Your task to perform on an android device: search for starred emails in the gmail app Image 0: 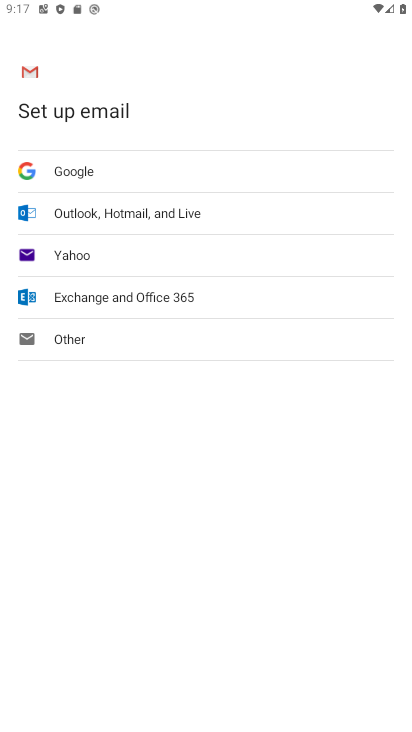
Step 0: press home button
Your task to perform on an android device: search for starred emails in the gmail app Image 1: 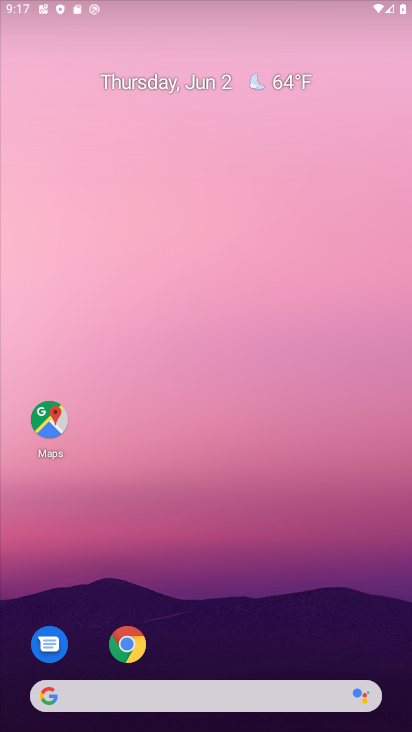
Step 1: drag from (274, 609) to (291, 19)
Your task to perform on an android device: search for starred emails in the gmail app Image 2: 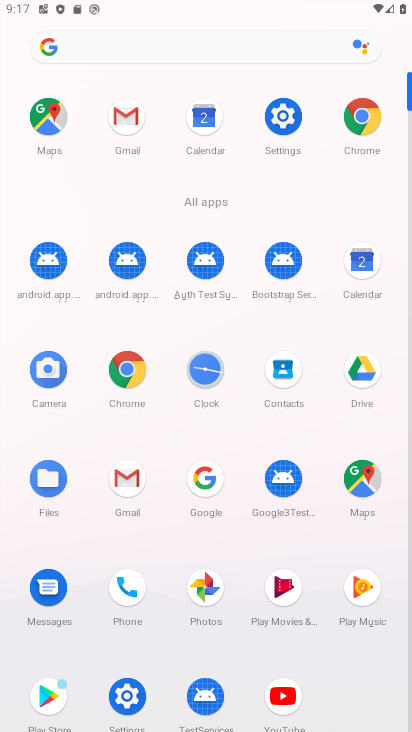
Step 2: click (113, 476)
Your task to perform on an android device: search for starred emails in the gmail app Image 3: 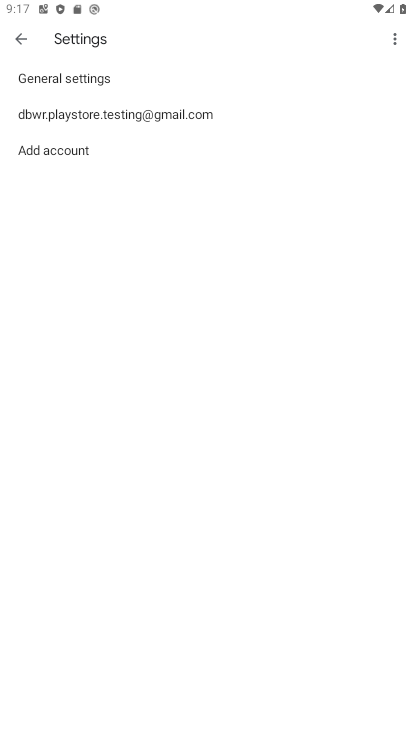
Step 3: click (19, 34)
Your task to perform on an android device: search for starred emails in the gmail app Image 4: 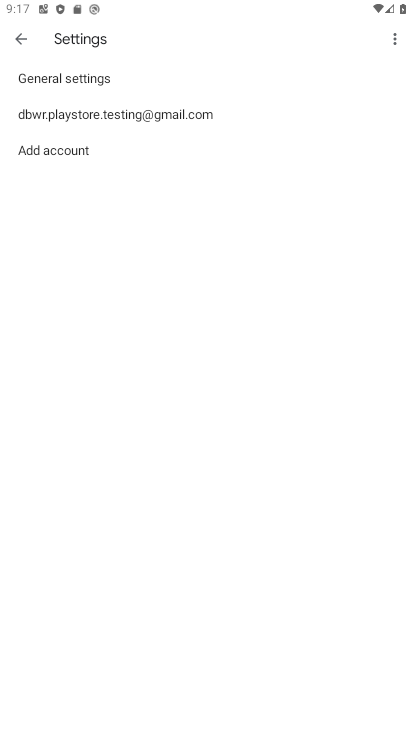
Step 4: click (19, 34)
Your task to perform on an android device: search for starred emails in the gmail app Image 5: 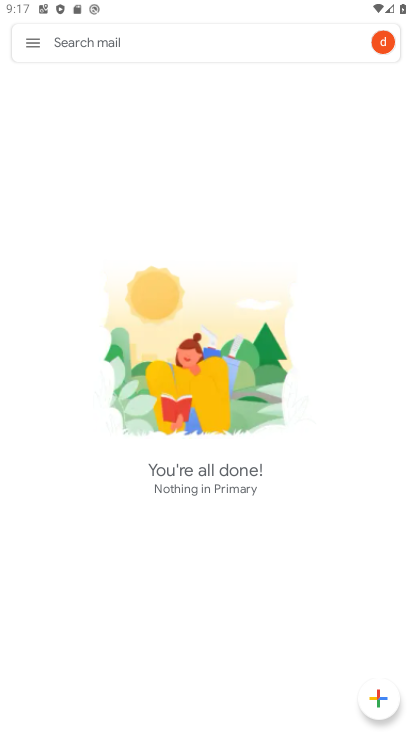
Step 5: click (19, 34)
Your task to perform on an android device: search for starred emails in the gmail app Image 6: 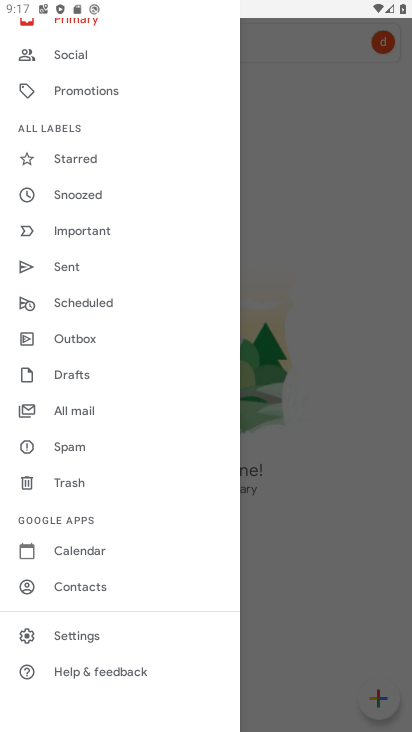
Step 6: click (58, 163)
Your task to perform on an android device: search for starred emails in the gmail app Image 7: 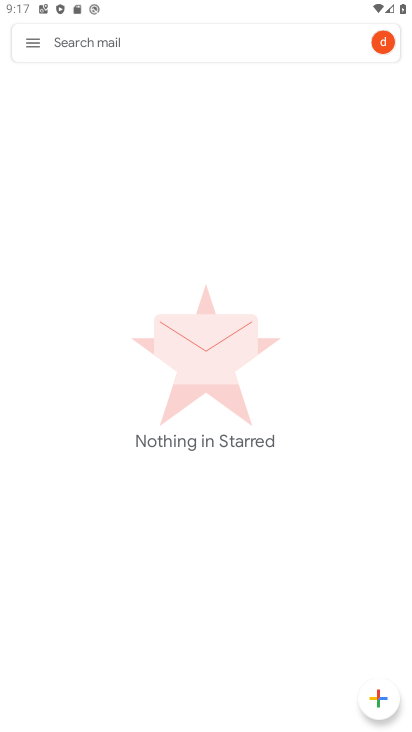
Step 7: task complete